Your task to perform on an android device: turn on the 24-hour format for clock Image 0: 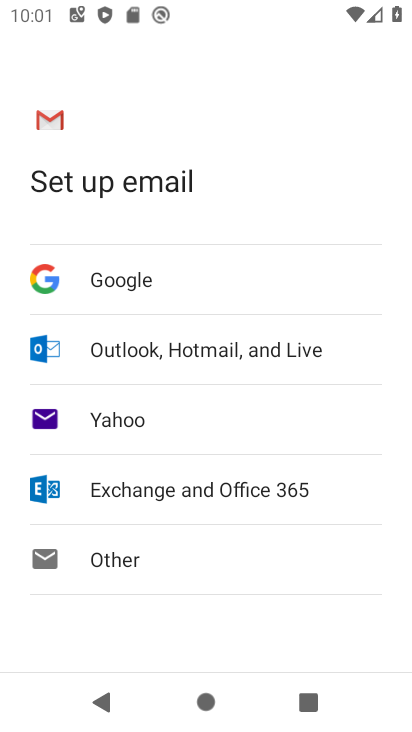
Step 0: press home button
Your task to perform on an android device: turn on the 24-hour format for clock Image 1: 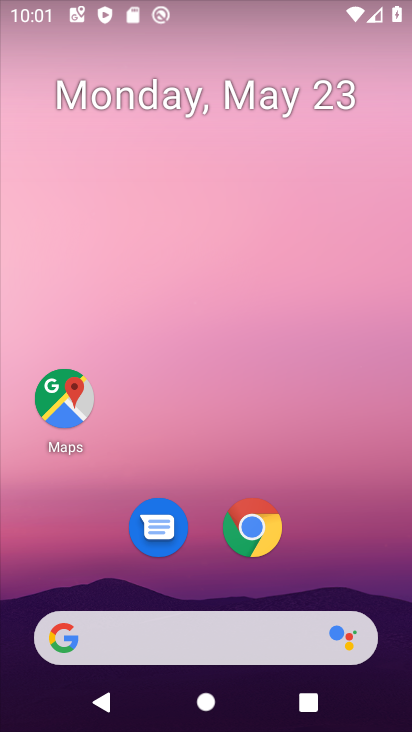
Step 1: drag from (243, 577) to (287, 158)
Your task to perform on an android device: turn on the 24-hour format for clock Image 2: 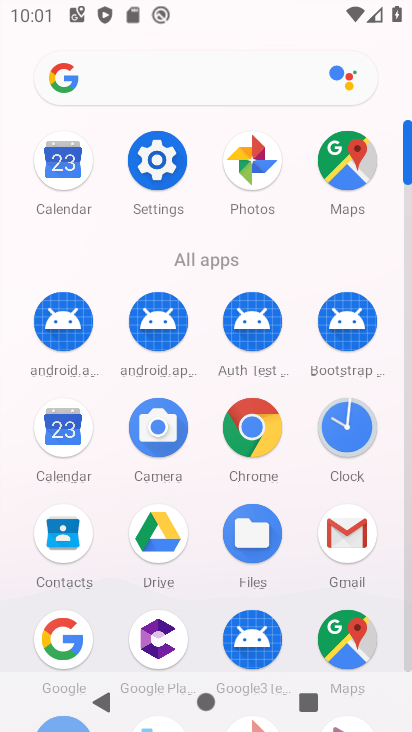
Step 2: click (151, 187)
Your task to perform on an android device: turn on the 24-hour format for clock Image 3: 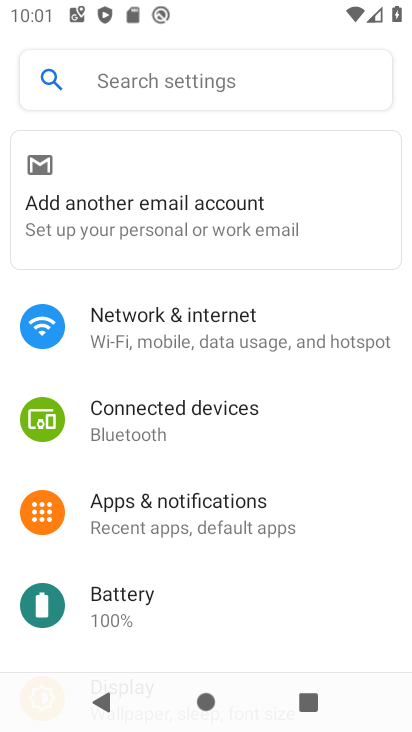
Step 3: drag from (203, 585) to (250, 179)
Your task to perform on an android device: turn on the 24-hour format for clock Image 4: 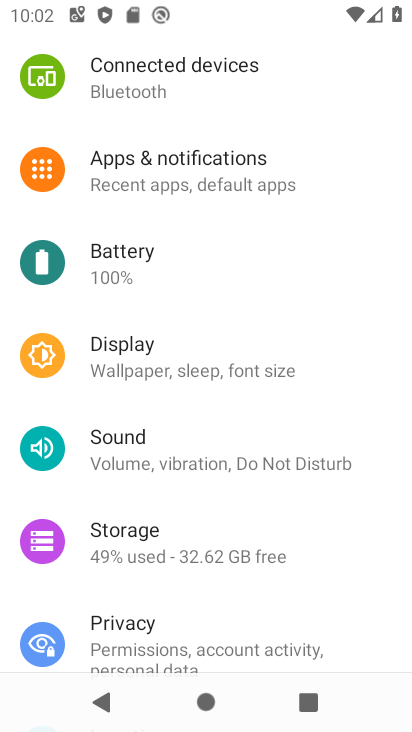
Step 4: drag from (139, 624) to (147, 252)
Your task to perform on an android device: turn on the 24-hour format for clock Image 5: 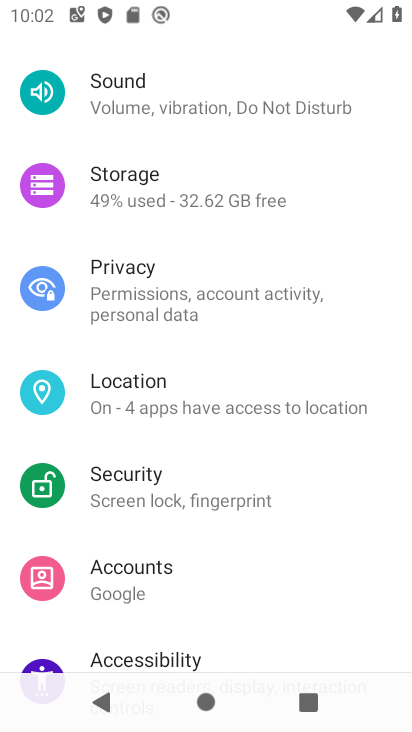
Step 5: drag from (153, 610) to (139, 342)
Your task to perform on an android device: turn on the 24-hour format for clock Image 6: 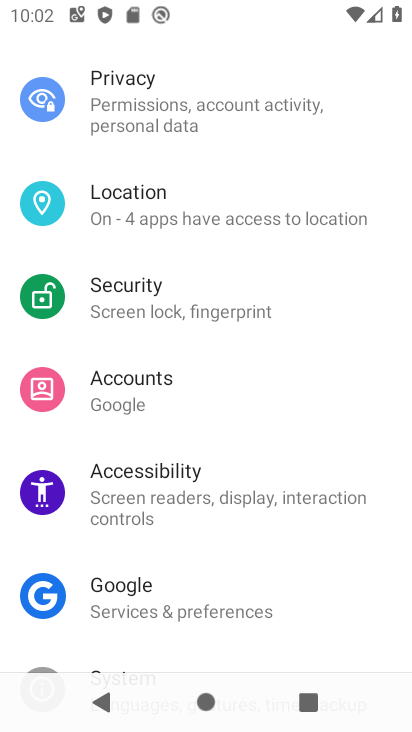
Step 6: drag from (146, 608) to (166, 162)
Your task to perform on an android device: turn on the 24-hour format for clock Image 7: 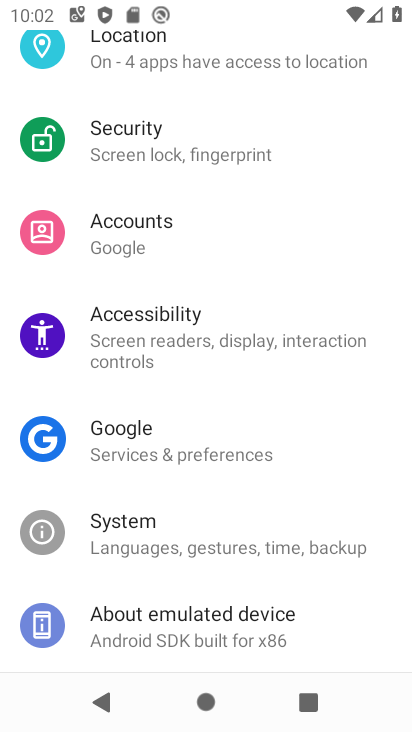
Step 7: click (161, 537)
Your task to perform on an android device: turn on the 24-hour format for clock Image 8: 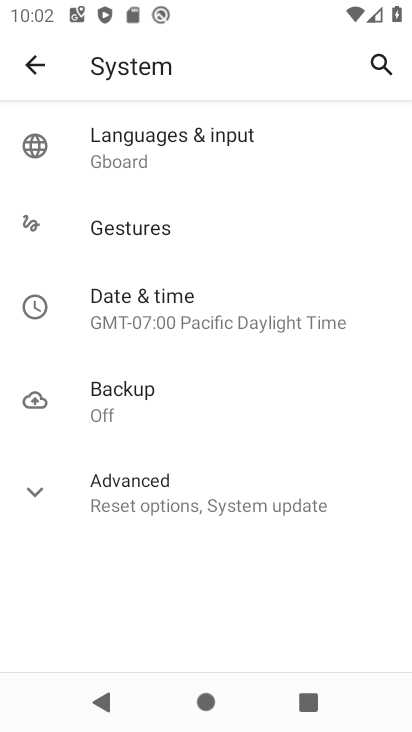
Step 8: click (139, 317)
Your task to perform on an android device: turn on the 24-hour format for clock Image 9: 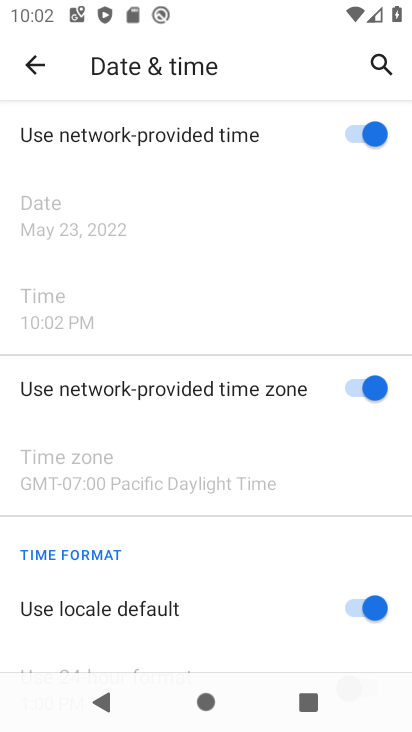
Step 9: drag from (173, 588) to (181, 237)
Your task to perform on an android device: turn on the 24-hour format for clock Image 10: 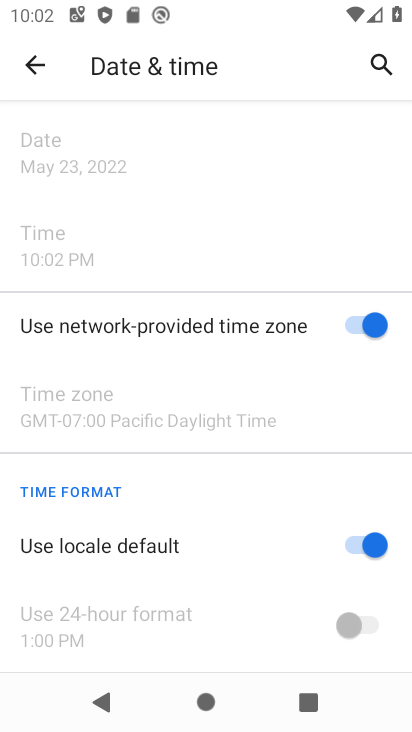
Step 10: click (370, 541)
Your task to perform on an android device: turn on the 24-hour format for clock Image 11: 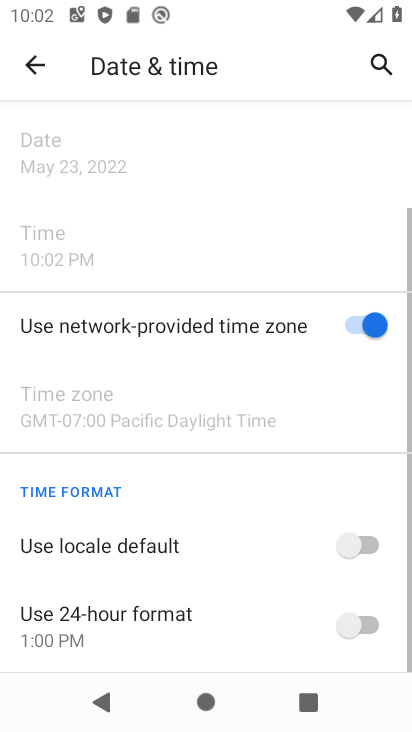
Step 11: click (361, 623)
Your task to perform on an android device: turn on the 24-hour format for clock Image 12: 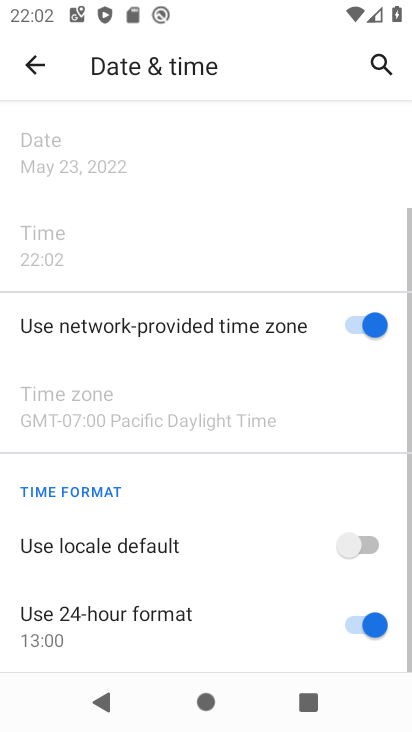
Step 12: task complete